Your task to perform on an android device: turn on priority inbox in the gmail app Image 0: 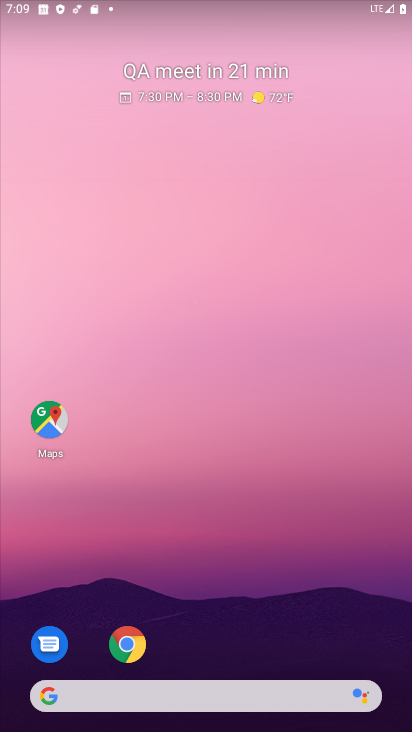
Step 0: drag from (242, 724) to (326, 139)
Your task to perform on an android device: turn on priority inbox in the gmail app Image 1: 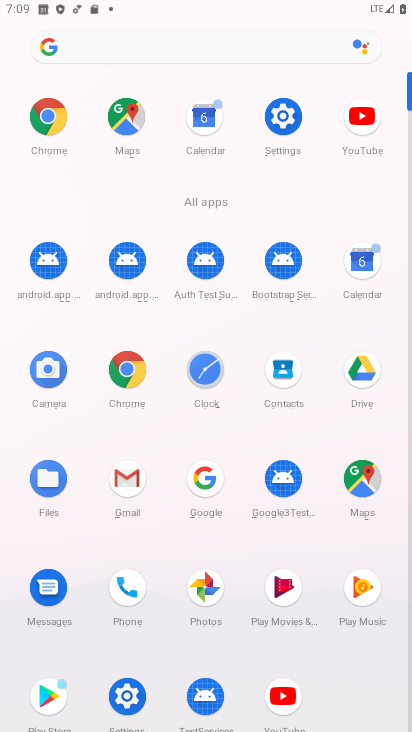
Step 1: click (123, 471)
Your task to perform on an android device: turn on priority inbox in the gmail app Image 2: 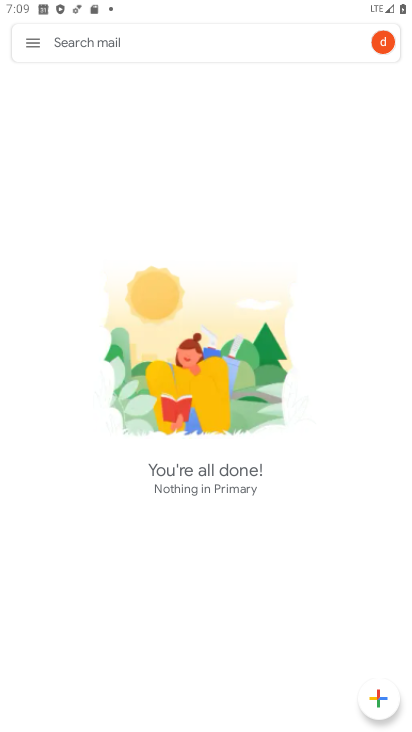
Step 2: click (24, 40)
Your task to perform on an android device: turn on priority inbox in the gmail app Image 3: 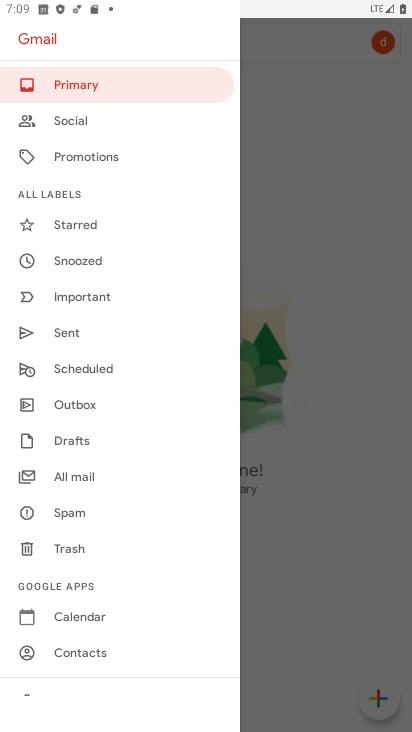
Step 3: drag from (86, 647) to (117, 575)
Your task to perform on an android device: turn on priority inbox in the gmail app Image 4: 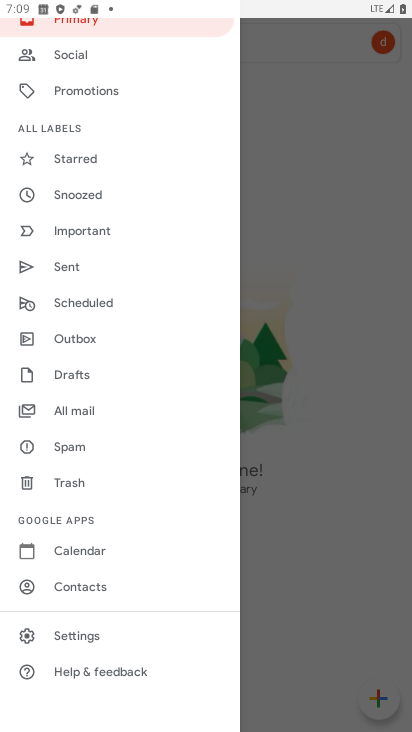
Step 4: click (72, 633)
Your task to perform on an android device: turn on priority inbox in the gmail app Image 5: 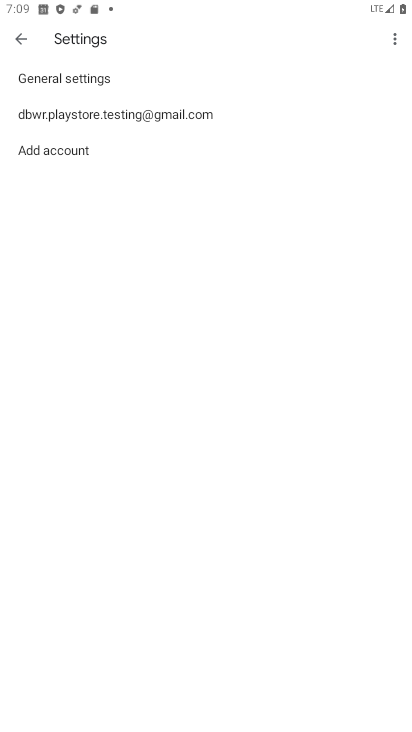
Step 5: click (108, 108)
Your task to perform on an android device: turn on priority inbox in the gmail app Image 6: 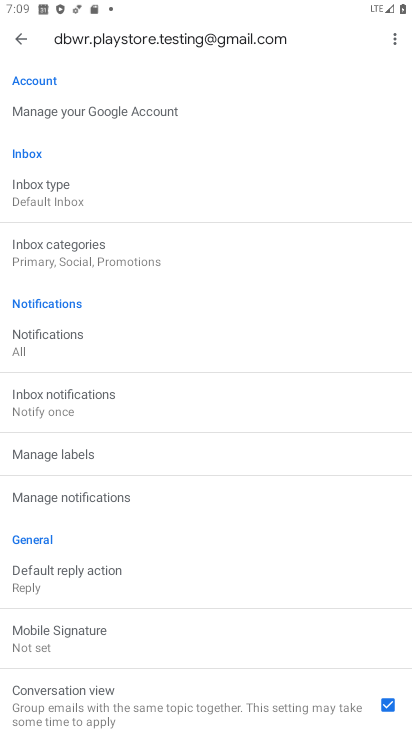
Step 6: click (92, 193)
Your task to perform on an android device: turn on priority inbox in the gmail app Image 7: 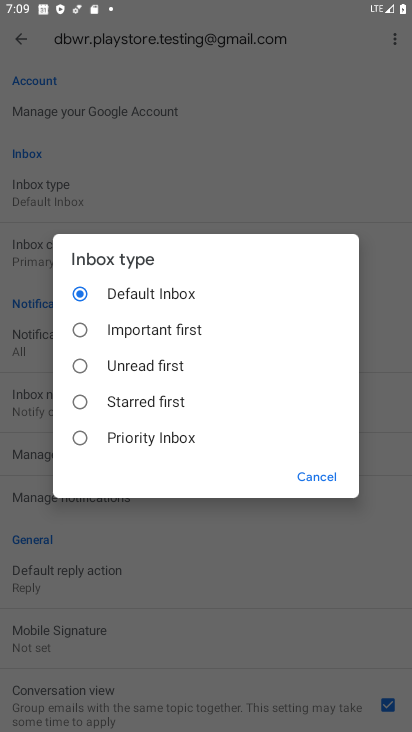
Step 7: click (129, 443)
Your task to perform on an android device: turn on priority inbox in the gmail app Image 8: 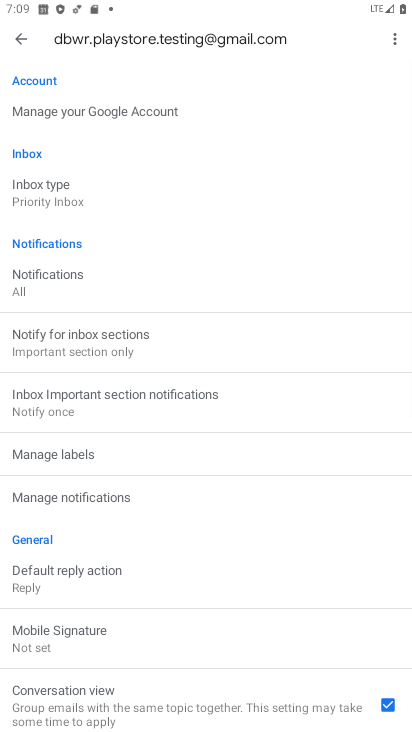
Step 8: task complete